Your task to perform on an android device: Go to privacy settings Image 0: 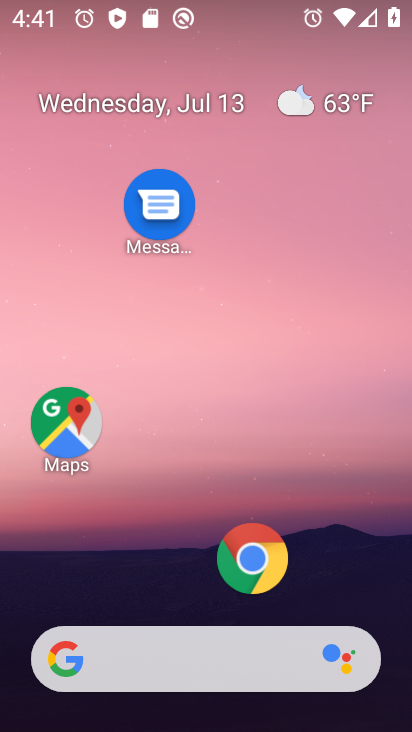
Step 0: drag from (184, 578) to (194, 246)
Your task to perform on an android device: Go to privacy settings Image 1: 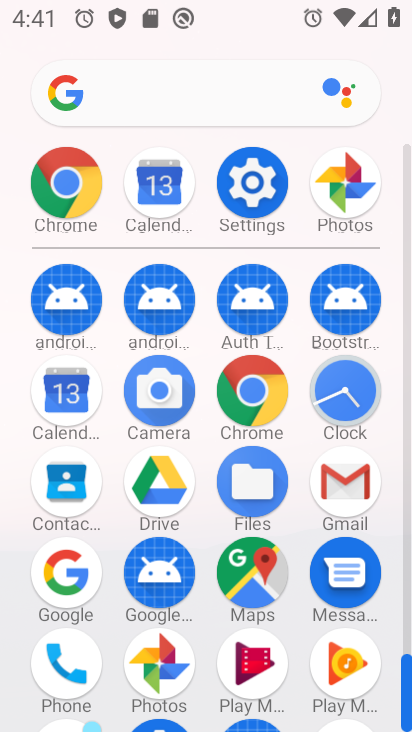
Step 1: click (249, 177)
Your task to perform on an android device: Go to privacy settings Image 2: 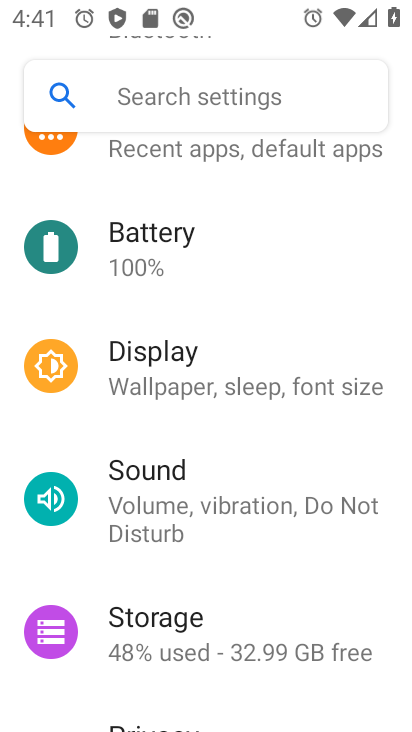
Step 2: drag from (190, 677) to (176, 231)
Your task to perform on an android device: Go to privacy settings Image 3: 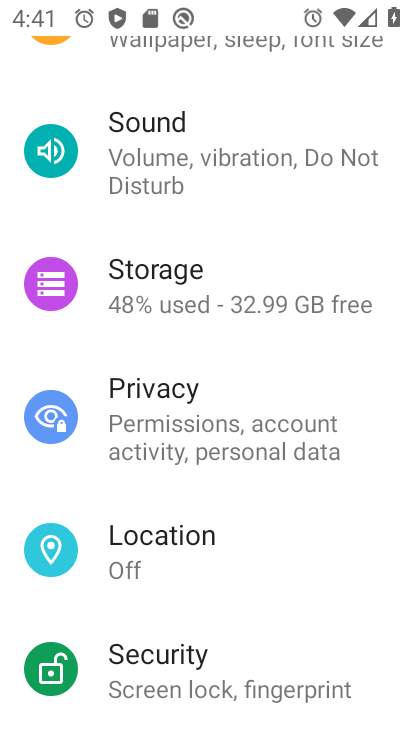
Step 3: click (167, 403)
Your task to perform on an android device: Go to privacy settings Image 4: 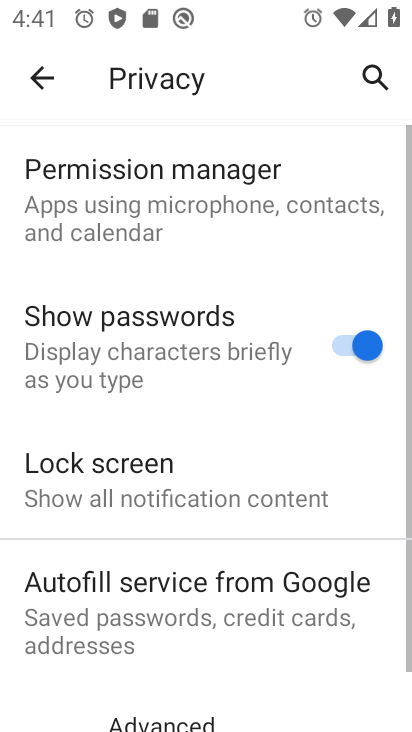
Step 4: drag from (153, 704) to (159, 363)
Your task to perform on an android device: Go to privacy settings Image 5: 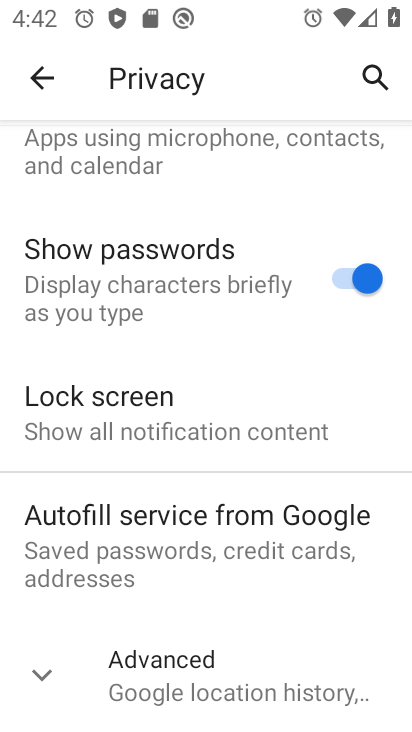
Step 5: click (149, 654)
Your task to perform on an android device: Go to privacy settings Image 6: 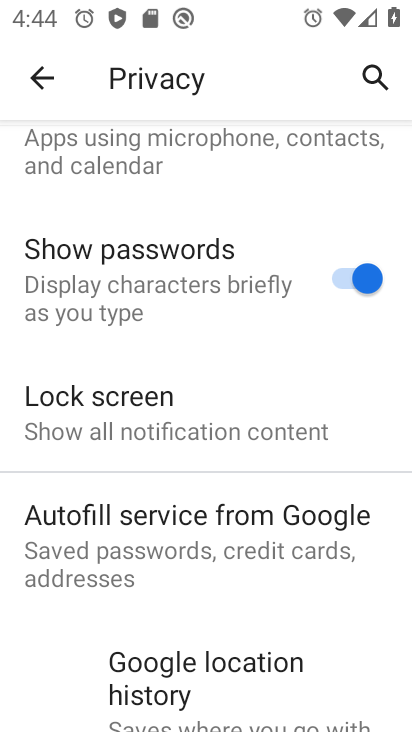
Step 6: task complete